Your task to perform on an android device: toggle pop-ups in chrome Image 0: 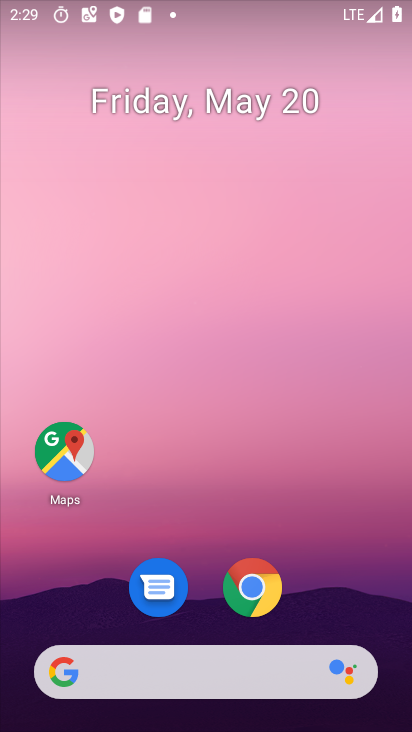
Step 0: click (262, 573)
Your task to perform on an android device: toggle pop-ups in chrome Image 1: 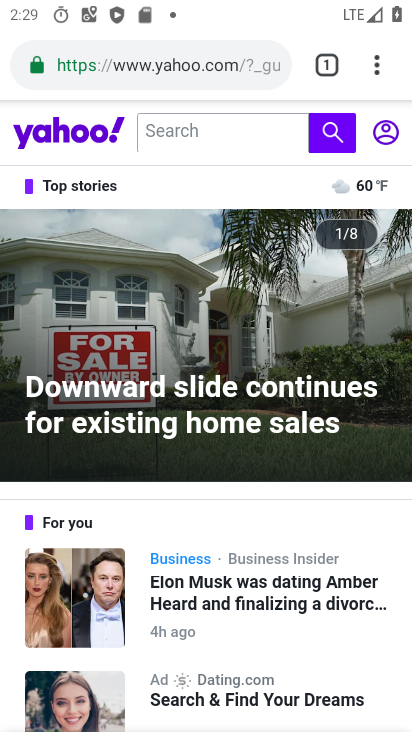
Step 1: drag from (386, 67) to (207, 647)
Your task to perform on an android device: toggle pop-ups in chrome Image 2: 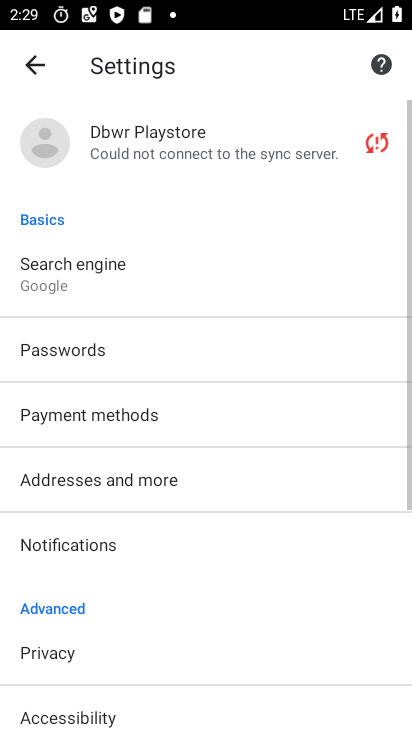
Step 2: drag from (216, 605) to (279, 301)
Your task to perform on an android device: toggle pop-ups in chrome Image 3: 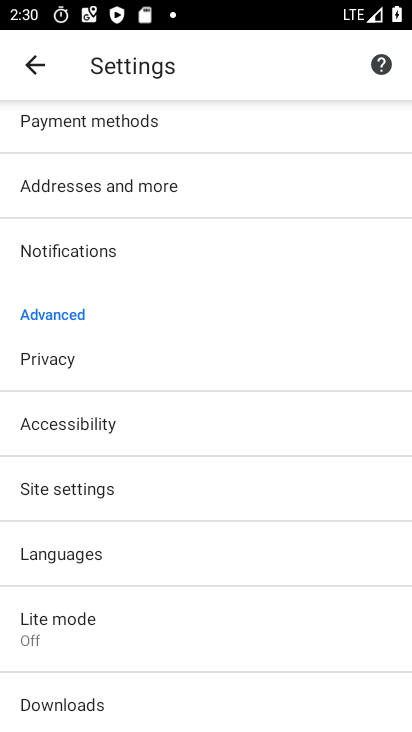
Step 3: click (64, 489)
Your task to perform on an android device: toggle pop-ups in chrome Image 4: 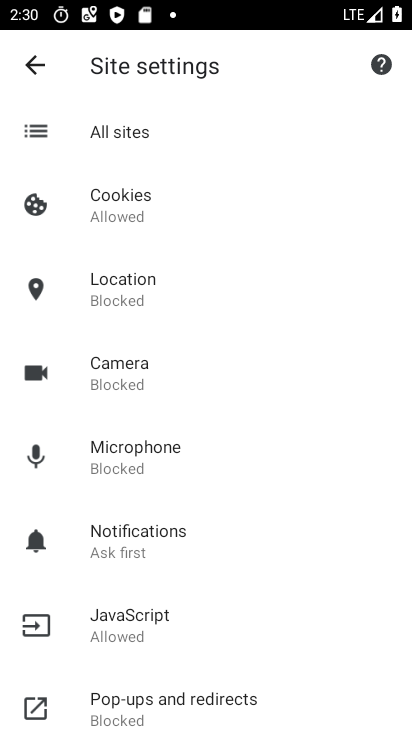
Step 4: drag from (189, 570) to (286, 140)
Your task to perform on an android device: toggle pop-ups in chrome Image 5: 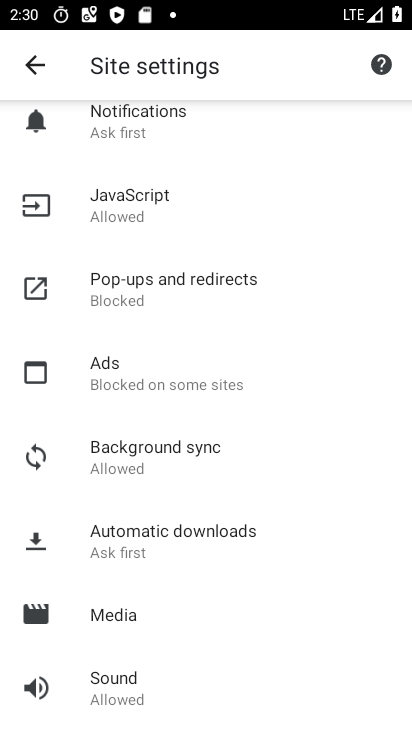
Step 5: click (175, 292)
Your task to perform on an android device: toggle pop-ups in chrome Image 6: 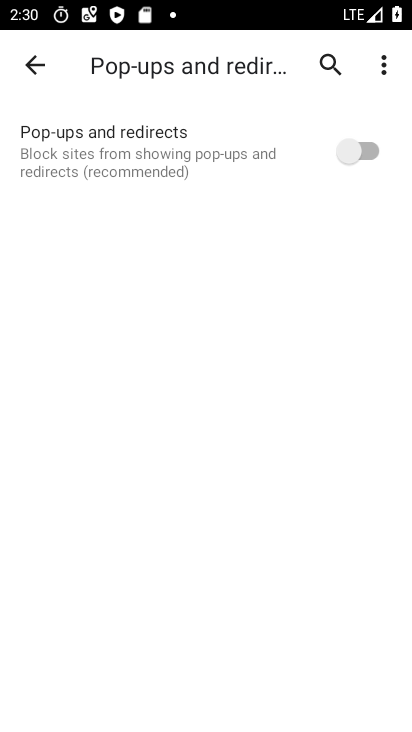
Step 6: click (353, 150)
Your task to perform on an android device: toggle pop-ups in chrome Image 7: 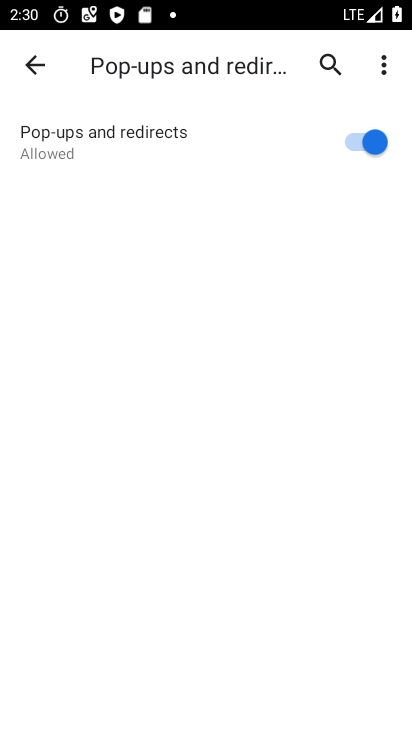
Step 7: task complete